Your task to perform on an android device: remove spam from my inbox in the gmail app Image 0: 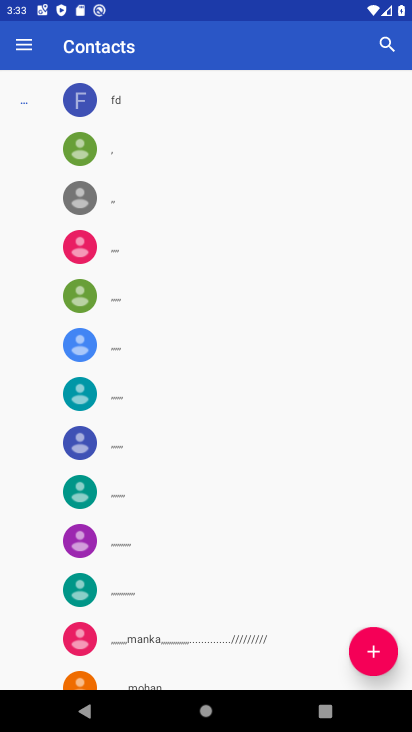
Step 0: press home button
Your task to perform on an android device: remove spam from my inbox in the gmail app Image 1: 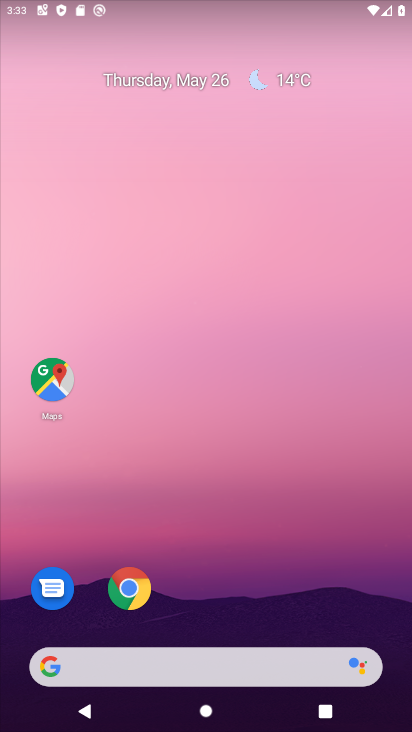
Step 1: drag from (267, 597) to (300, 216)
Your task to perform on an android device: remove spam from my inbox in the gmail app Image 2: 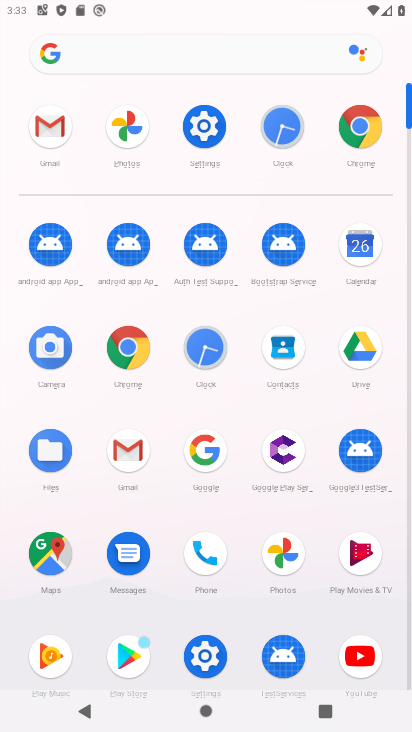
Step 2: click (66, 139)
Your task to perform on an android device: remove spam from my inbox in the gmail app Image 3: 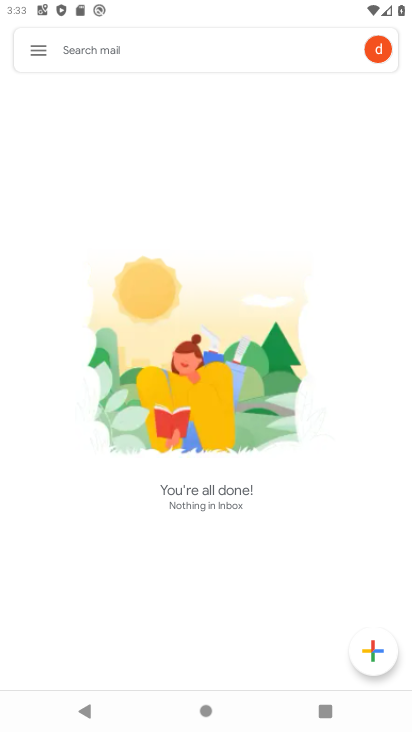
Step 3: click (30, 55)
Your task to perform on an android device: remove spam from my inbox in the gmail app Image 4: 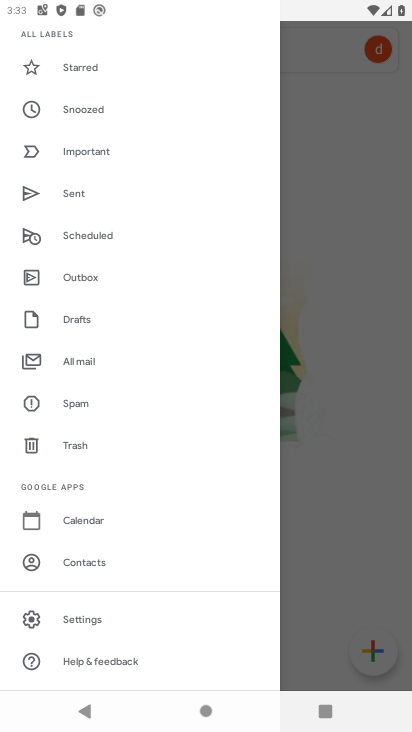
Step 4: click (70, 417)
Your task to perform on an android device: remove spam from my inbox in the gmail app Image 5: 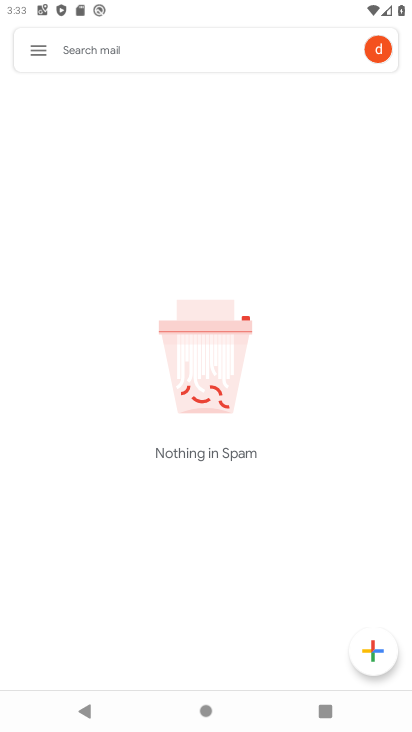
Step 5: task complete